Your task to perform on an android device: Go to sound settings Image 0: 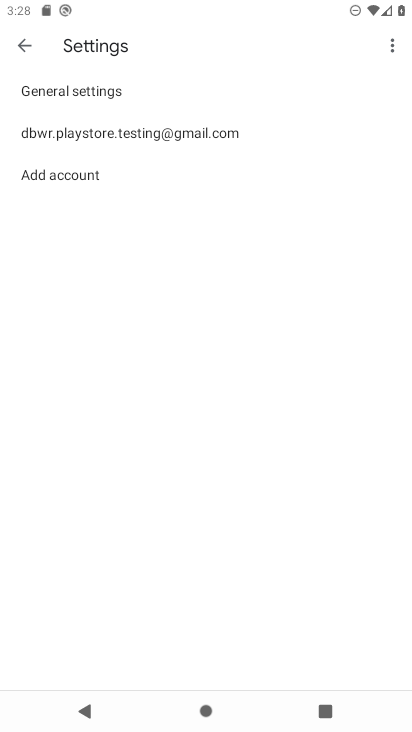
Step 0: press home button
Your task to perform on an android device: Go to sound settings Image 1: 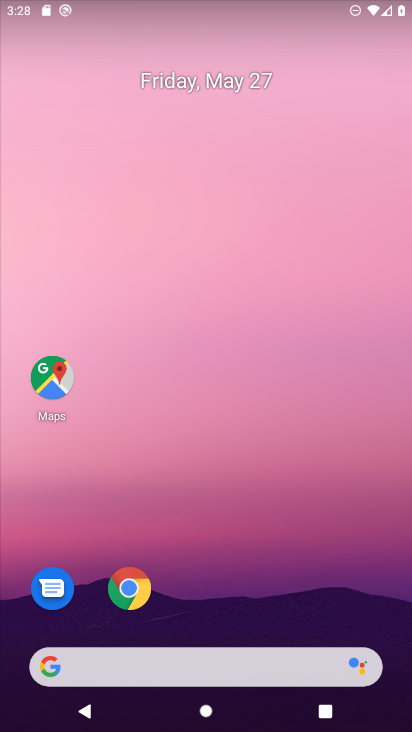
Step 1: drag from (203, 555) to (150, 62)
Your task to perform on an android device: Go to sound settings Image 2: 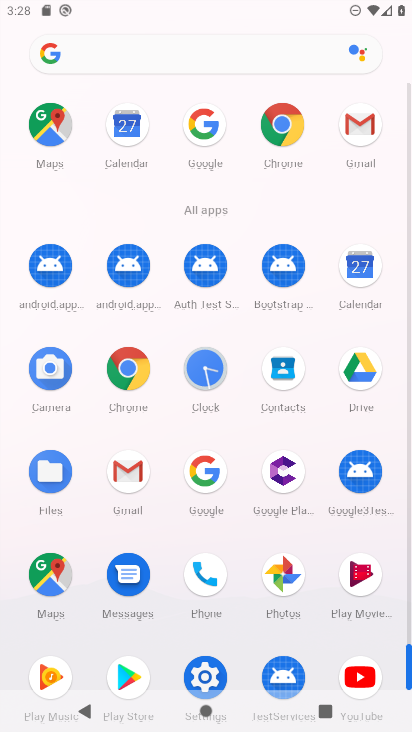
Step 2: click (197, 669)
Your task to perform on an android device: Go to sound settings Image 3: 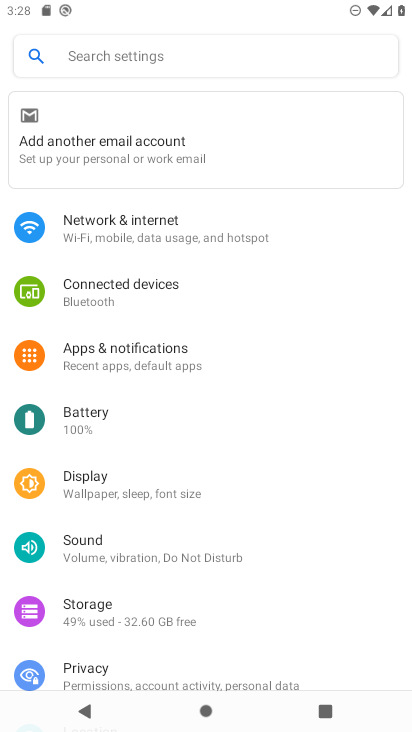
Step 3: click (130, 544)
Your task to perform on an android device: Go to sound settings Image 4: 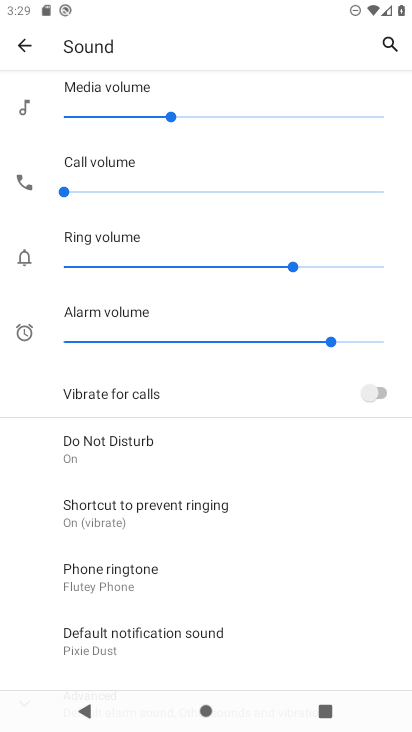
Step 4: task complete